Your task to perform on an android device: Search for vegetarian restaurants on Maps Image 0: 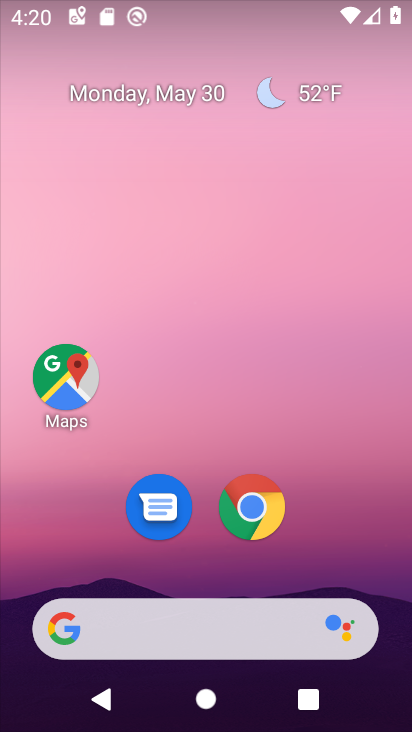
Step 0: click (66, 380)
Your task to perform on an android device: Search for vegetarian restaurants on Maps Image 1: 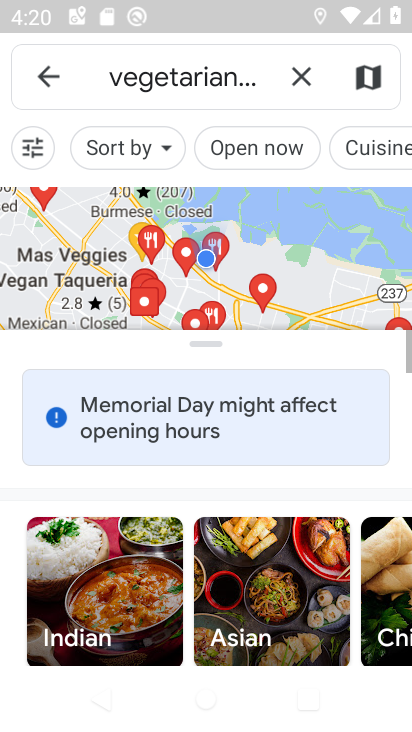
Step 1: click (308, 68)
Your task to perform on an android device: Search for vegetarian restaurants on Maps Image 2: 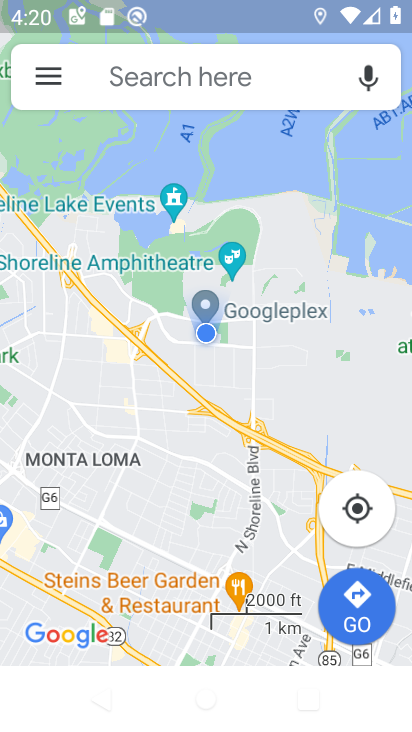
Step 2: click (266, 74)
Your task to perform on an android device: Search for vegetarian restaurants on Maps Image 3: 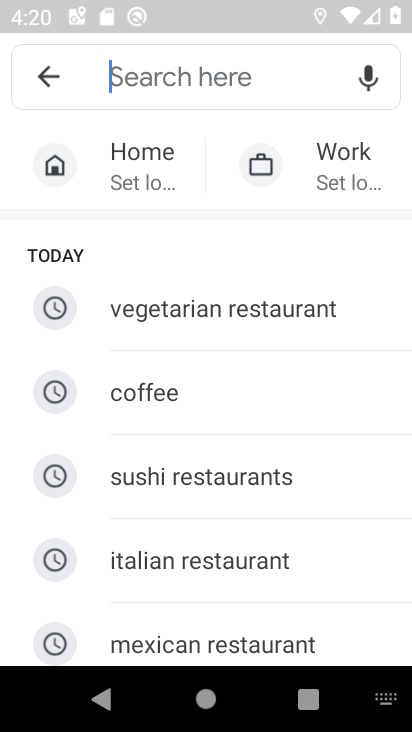
Step 3: type " vegetarian restaurants"
Your task to perform on an android device: Search for vegetarian restaurants on Maps Image 4: 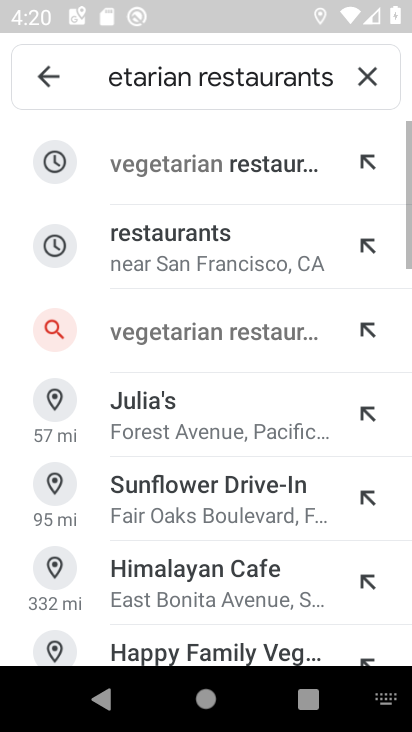
Step 4: click (211, 147)
Your task to perform on an android device: Search for vegetarian restaurants on Maps Image 5: 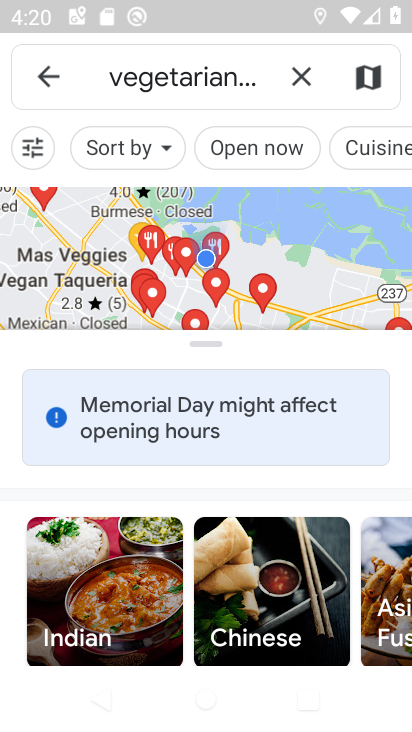
Step 5: task complete